Your task to perform on an android device: see sites visited before in the chrome app Image 0: 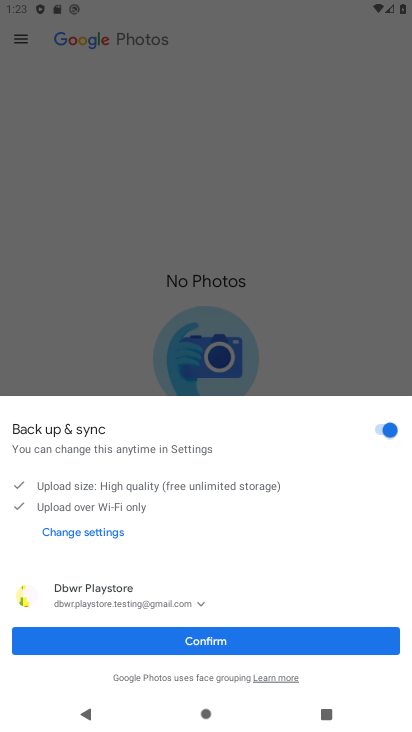
Step 0: press home button
Your task to perform on an android device: see sites visited before in the chrome app Image 1: 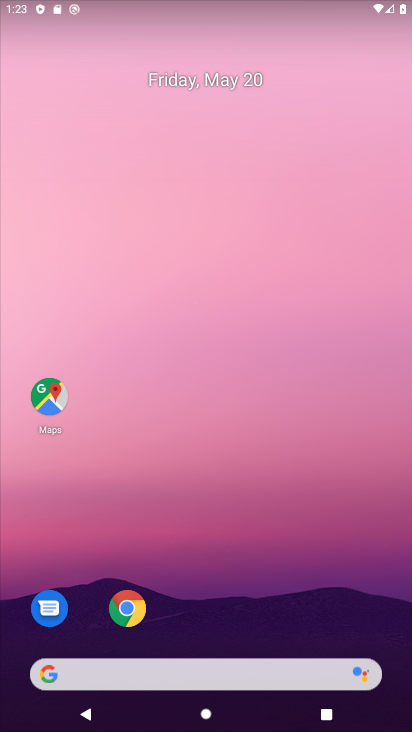
Step 1: click (137, 612)
Your task to perform on an android device: see sites visited before in the chrome app Image 2: 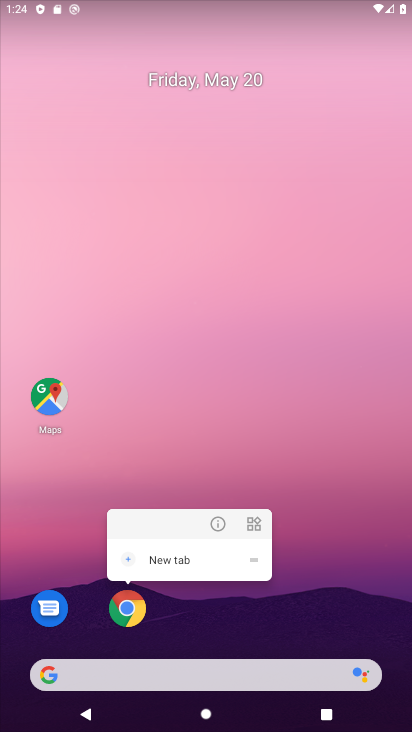
Step 2: click (129, 612)
Your task to perform on an android device: see sites visited before in the chrome app Image 3: 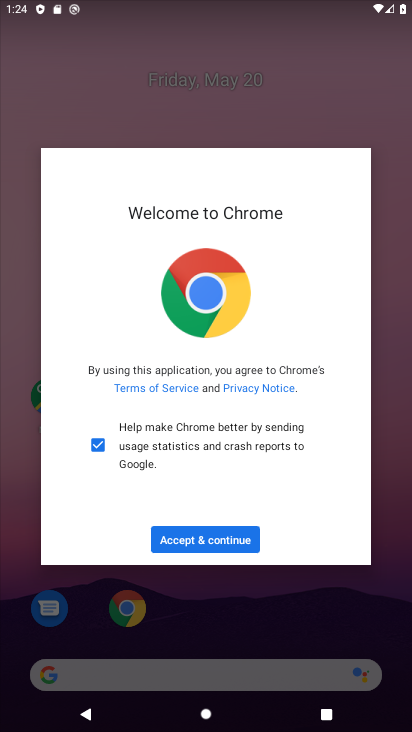
Step 3: click (208, 548)
Your task to perform on an android device: see sites visited before in the chrome app Image 4: 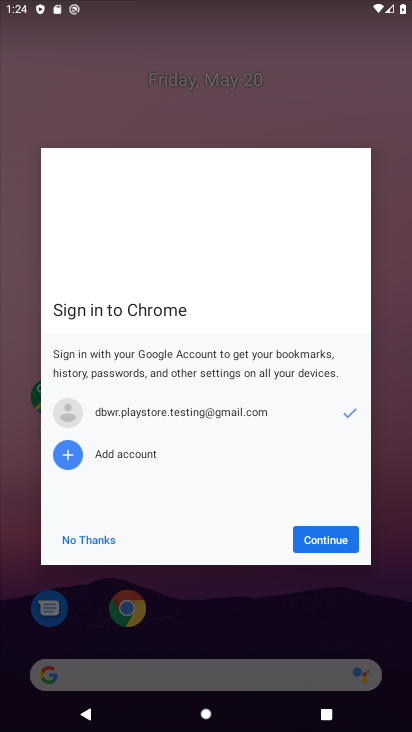
Step 4: click (328, 546)
Your task to perform on an android device: see sites visited before in the chrome app Image 5: 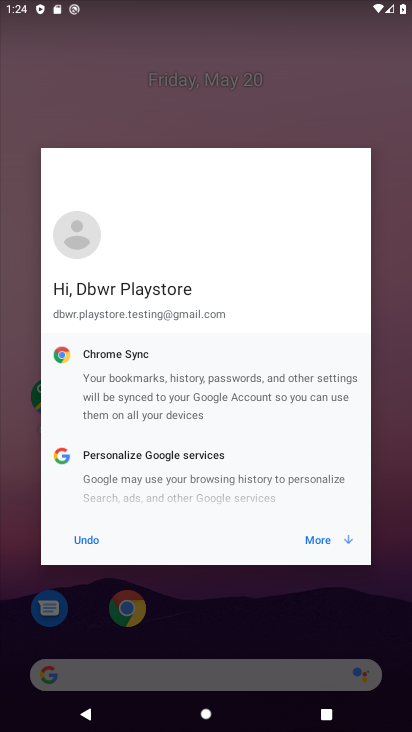
Step 5: click (330, 545)
Your task to perform on an android device: see sites visited before in the chrome app Image 6: 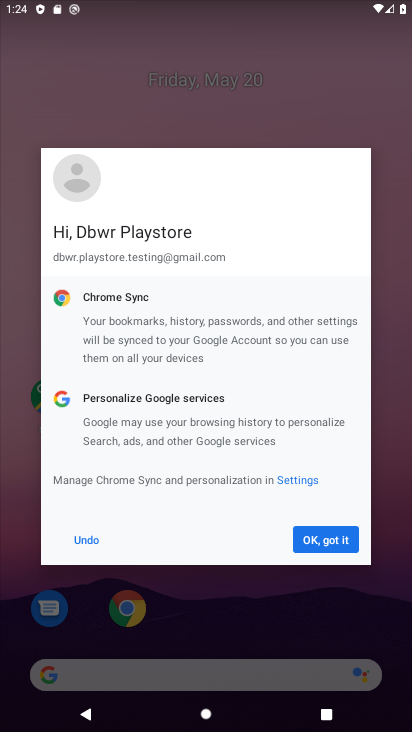
Step 6: click (330, 550)
Your task to perform on an android device: see sites visited before in the chrome app Image 7: 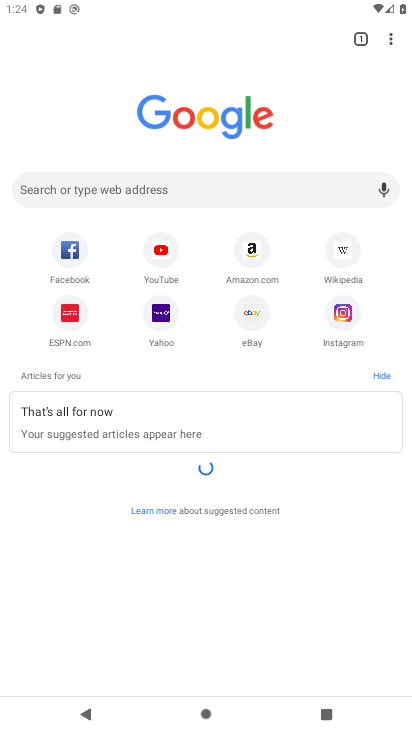
Step 7: drag from (389, 40) to (310, 186)
Your task to perform on an android device: see sites visited before in the chrome app Image 8: 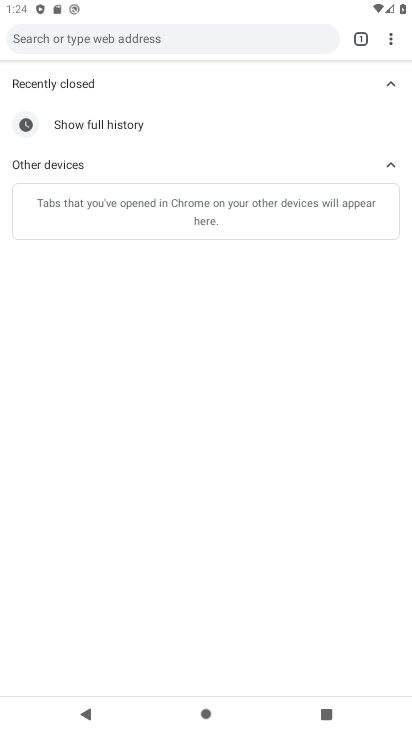
Step 8: click (139, 113)
Your task to perform on an android device: see sites visited before in the chrome app Image 9: 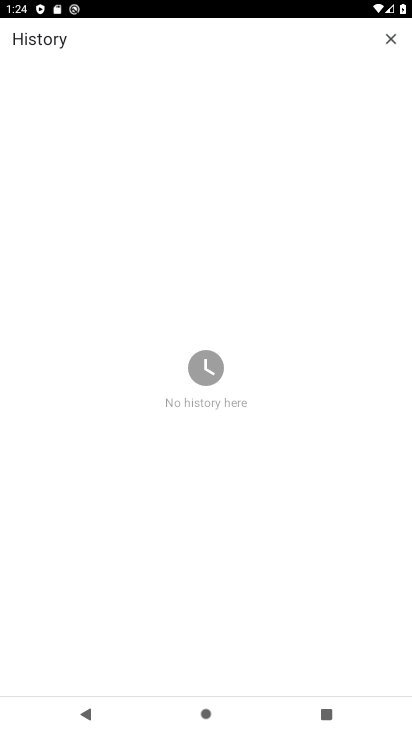
Step 9: task complete